Your task to perform on an android device: toggle priority inbox in the gmail app Image 0: 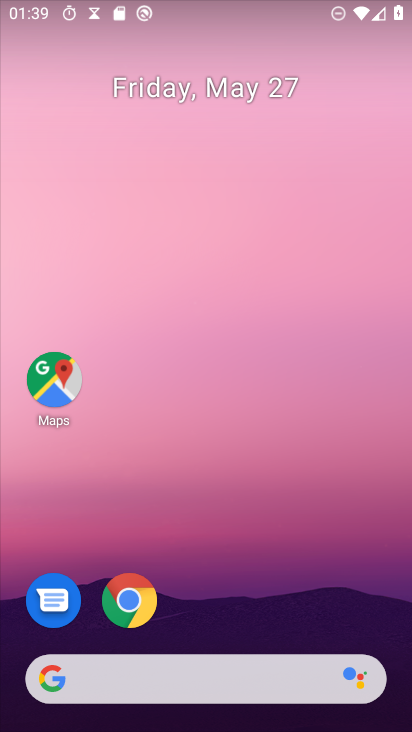
Step 0: drag from (290, 584) to (355, 300)
Your task to perform on an android device: toggle priority inbox in the gmail app Image 1: 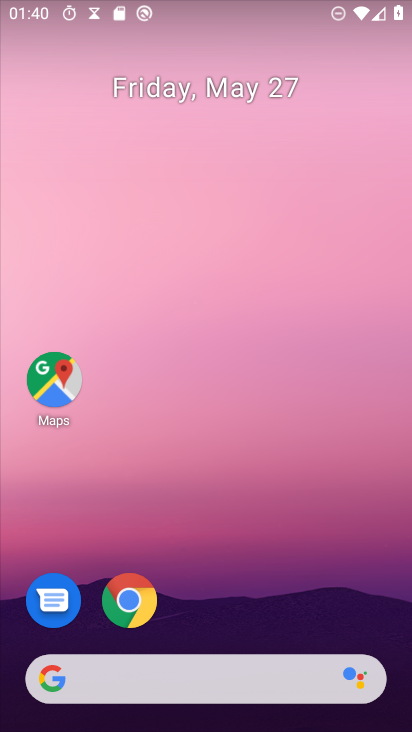
Step 1: drag from (243, 609) to (270, 304)
Your task to perform on an android device: toggle priority inbox in the gmail app Image 2: 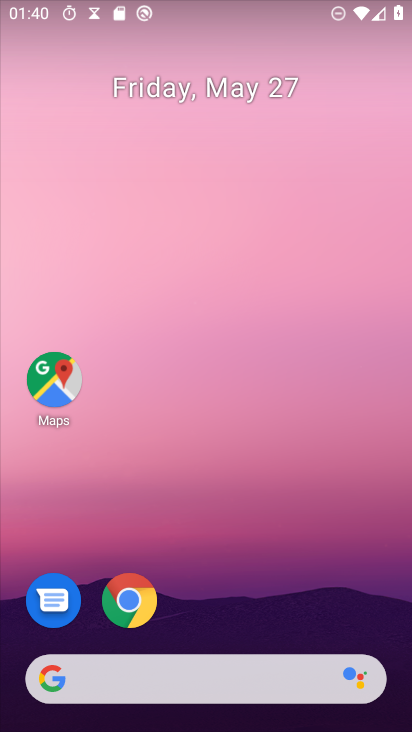
Step 2: drag from (178, 563) to (261, 170)
Your task to perform on an android device: toggle priority inbox in the gmail app Image 3: 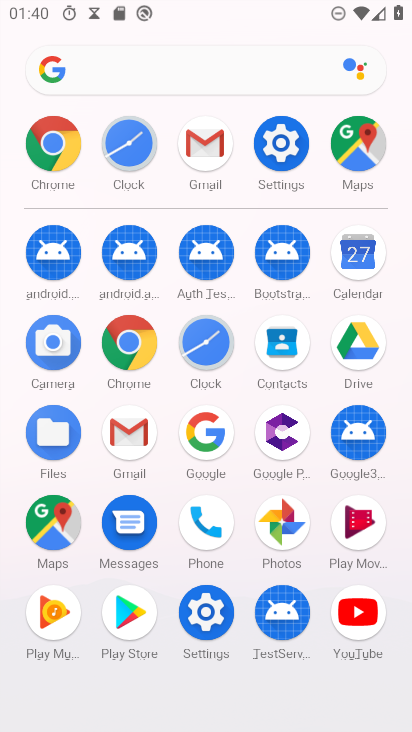
Step 3: click (206, 150)
Your task to perform on an android device: toggle priority inbox in the gmail app Image 4: 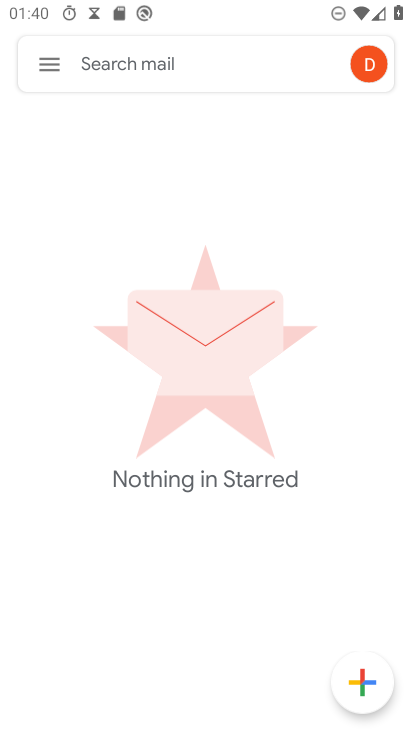
Step 4: click (42, 66)
Your task to perform on an android device: toggle priority inbox in the gmail app Image 5: 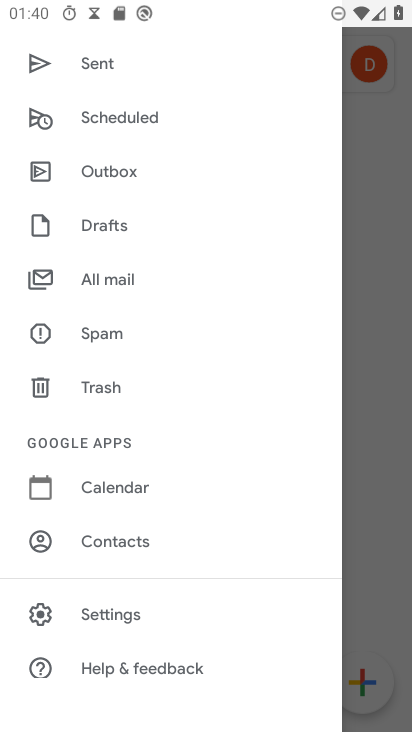
Step 5: click (88, 595)
Your task to perform on an android device: toggle priority inbox in the gmail app Image 6: 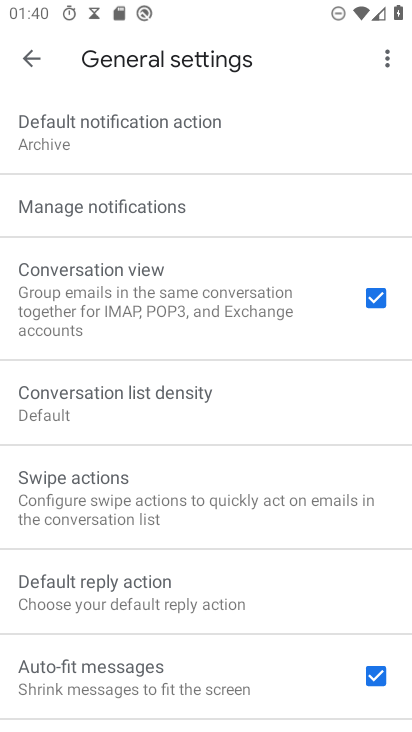
Step 6: task complete